Your task to perform on an android device: Open calendar and show me the fourth week of next month Image 0: 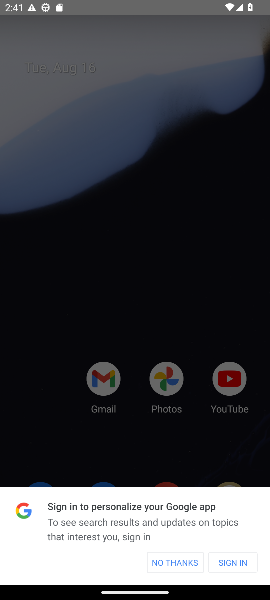
Step 0: drag from (135, 584) to (174, 114)
Your task to perform on an android device: Open calendar and show me the fourth week of next month Image 1: 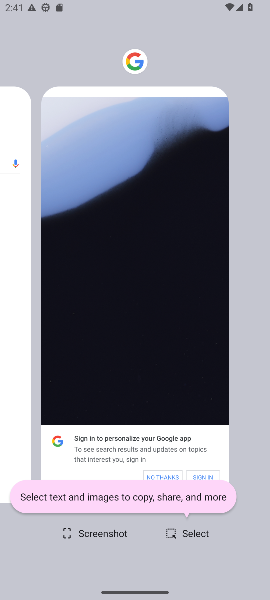
Step 1: press back button
Your task to perform on an android device: Open calendar and show me the fourth week of next month Image 2: 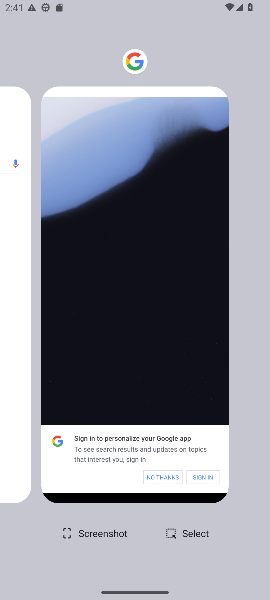
Step 2: press back button
Your task to perform on an android device: Open calendar and show me the fourth week of next month Image 3: 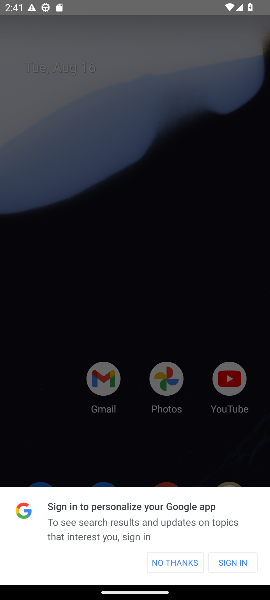
Step 3: click (167, 557)
Your task to perform on an android device: Open calendar and show me the fourth week of next month Image 4: 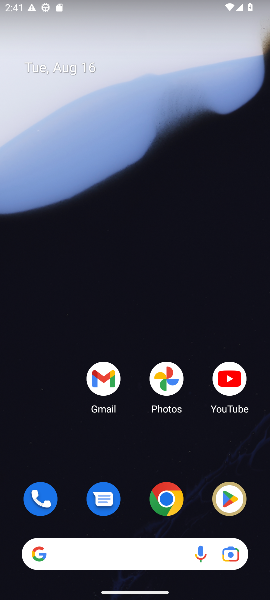
Step 4: drag from (129, 577) to (127, 0)
Your task to perform on an android device: Open calendar and show me the fourth week of next month Image 5: 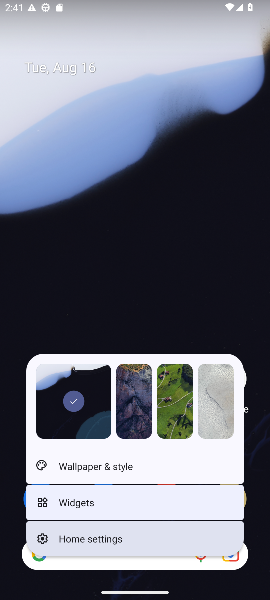
Step 5: click (151, 221)
Your task to perform on an android device: Open calendar and show me the fourth week of next month Image 6: 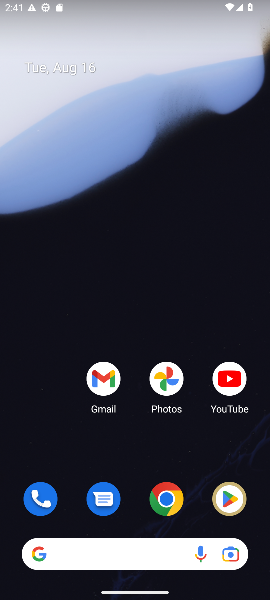
Step 6: drag from (148, 582) to (137, 24)
Your task to perform on an android device: Open calendar and show me the fourth week of next month Image 7: 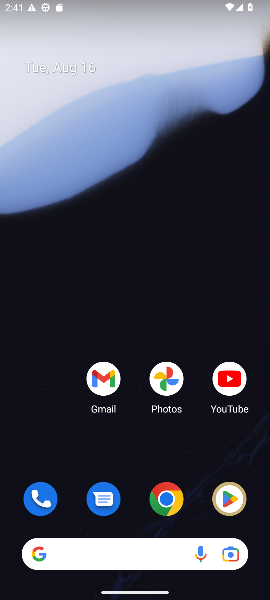
Step 7: drag from (142, 546) to (112, 16)
Your task to perform on an android device: Open calendar and show me the fourth week of next month Image 8: 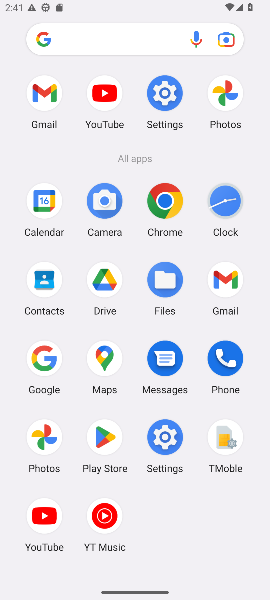
Step 8: click (34, 207)
Your task to perform on an android device: Open calendar and show me the fourth week of next month Image 9: 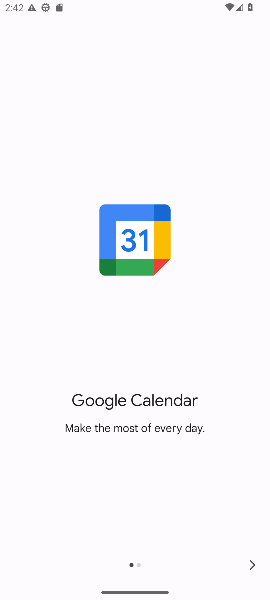
Step 9: click (249, 568)
Your task to perform on an android device: Open calendar and show me the fourth week of next month Image 10: 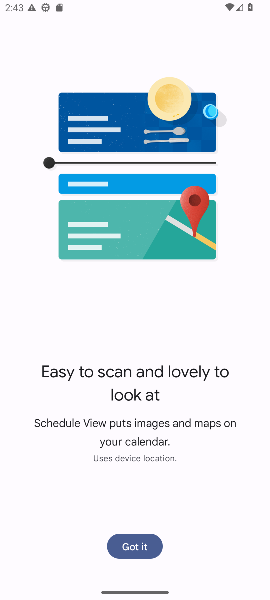
Step 10: click (130, 543)
Your task to perform on an android device: Open calendar and show me the fourth week of next month Image 11: 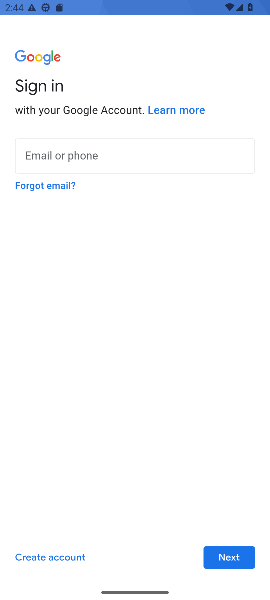
Step 11: click (234, 563)
Your task to perform on an android device: Open calendar and show me the fourth week of next month Image 12: 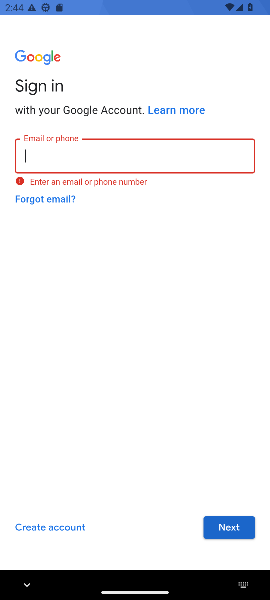
Step 12: task complete